Your task to perform on an android device: Open Wikipedia Image 0: 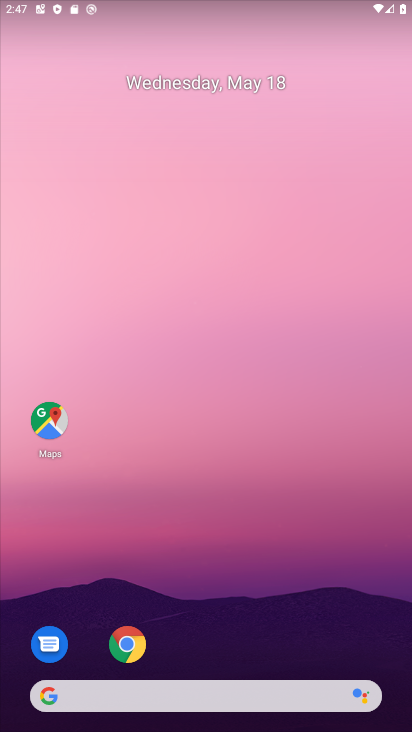
Step 0: click (238, 695)
Your task to perform on an android device: Open Wikipedia Image 1: 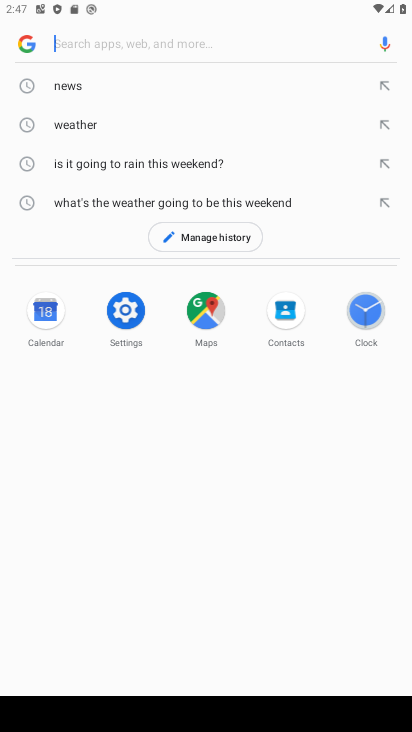
Step 1: type "wikipedia"
Your task to perform on an android device: Open Wikipedia Image 2: 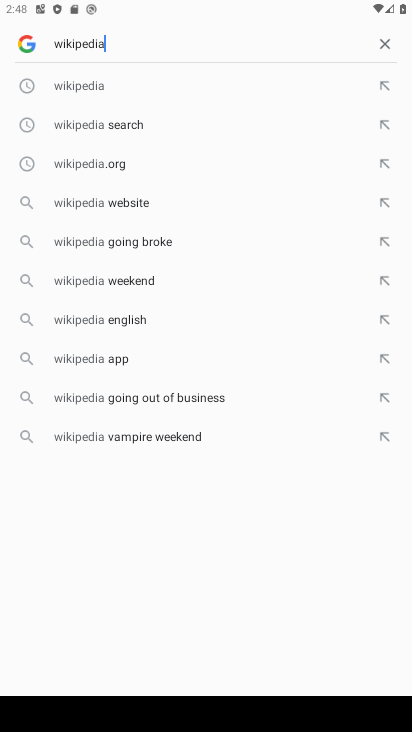
Step 2: click (125, 82)
Your task to perform on an android device: Open Wikipedia Image 3: 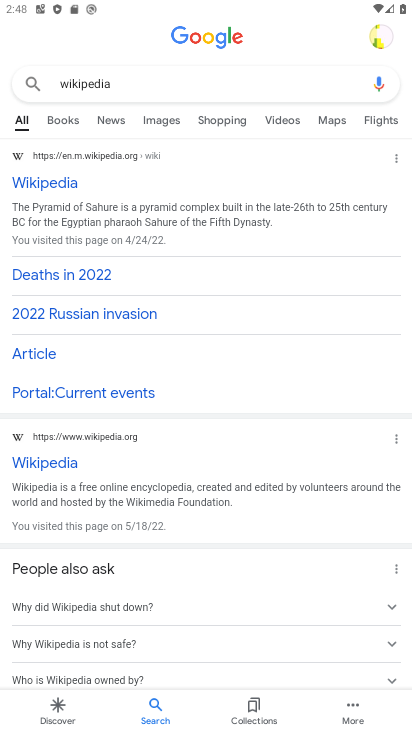
Step 3: click (45, 165)
Your task to perform on an android device: Open Wikipedia Image 4: 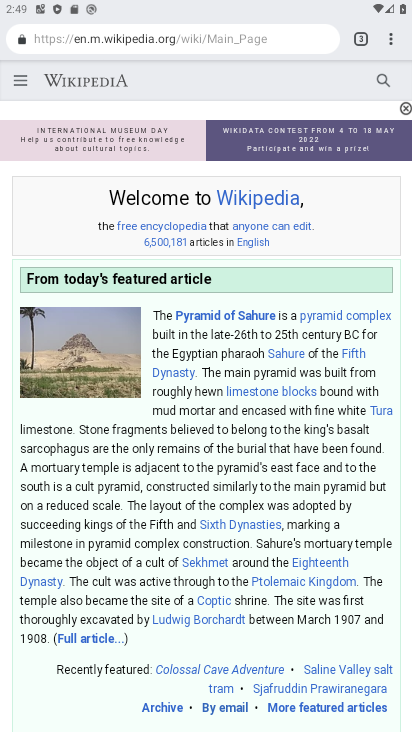
Step 4: task complete